Your task to perform on an android device: set an alarm Image 0: 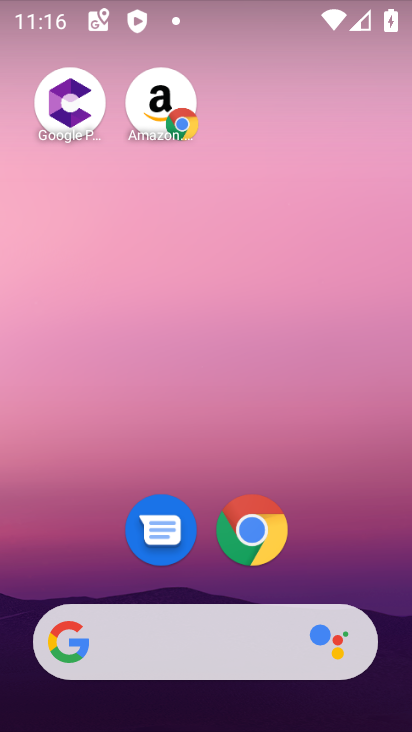
Step 0: drag from (43, 339) to (410, 292)
Your task to perform on an android device: set an alarm Image 1: 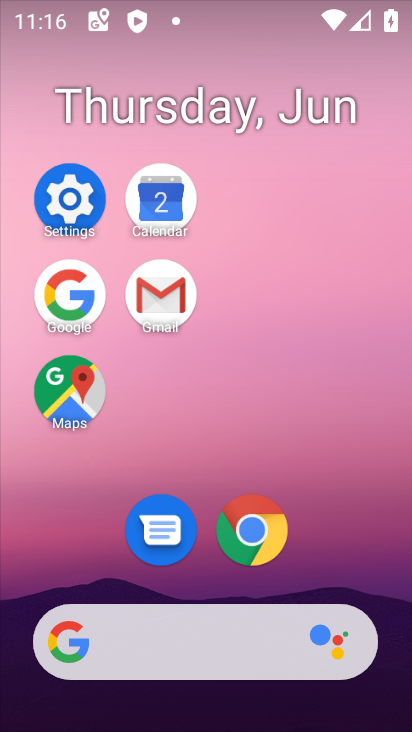
Step 1: drag from (327, 547) to (339, 92)
Your task to perform on an android device: set an alarm Image 2: 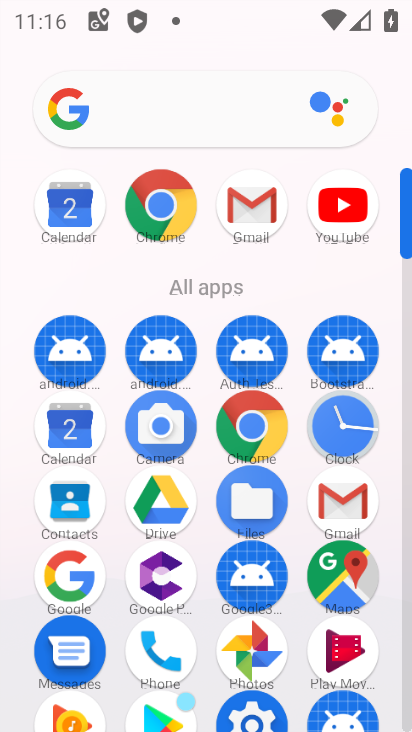
Step 2: drag from (339, 422) to (231, 240)
Your task to perform on an android device: set an alarm Image 3: 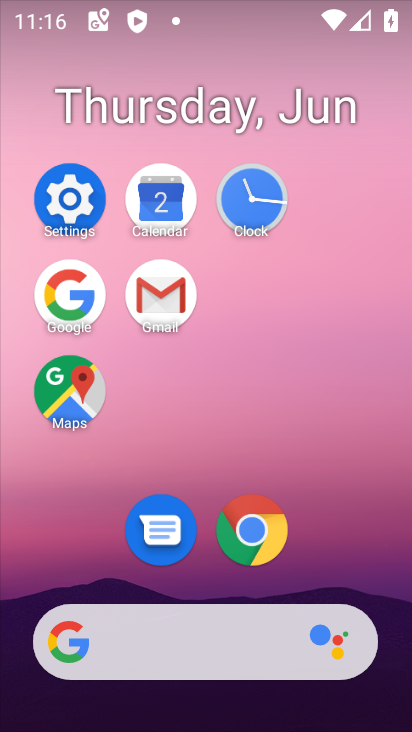
Step 3: click (247, 199)
Your task to perform on an android device: set an alarm Image 4: 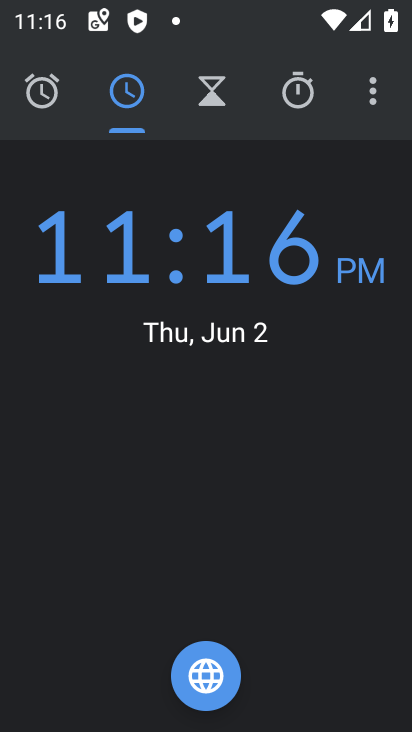
Step 4: click (44, 99)
Your task to perform on an android device: set an alarm Image 5: 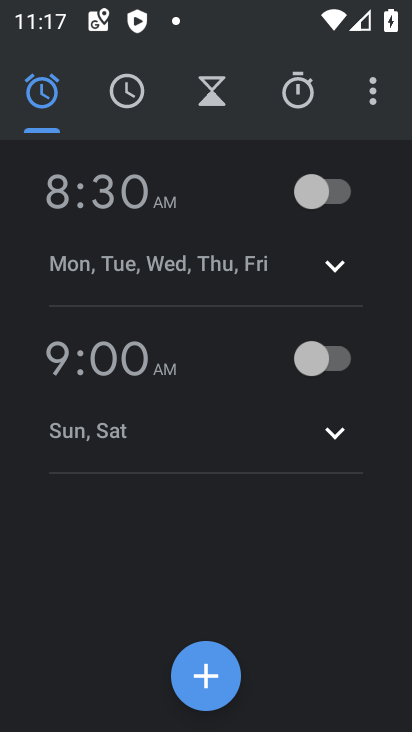
Step 5: click (364, 199)
Your task to perform on an android device: set an alarm Image 6: 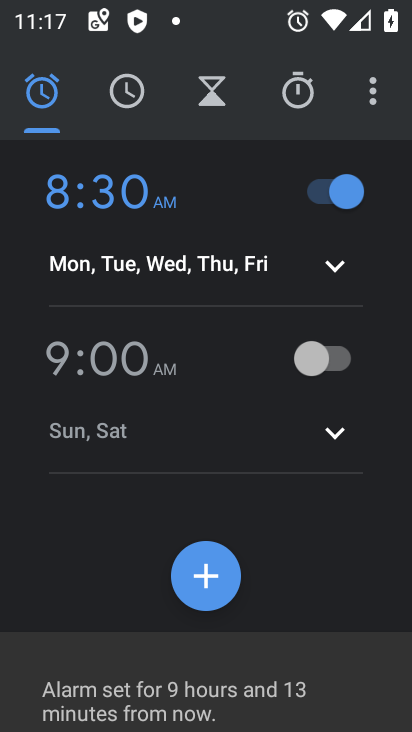
Step 6: task complete